Your task to perform on an android device: Go to Yahoo.com Image 0: 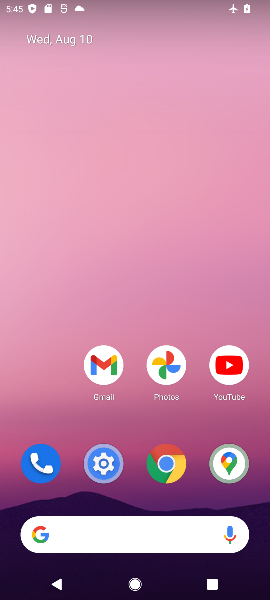
Step 0: click (171, 464)
Your task to perform on an android device: Go to Yahoo.com Image 1: 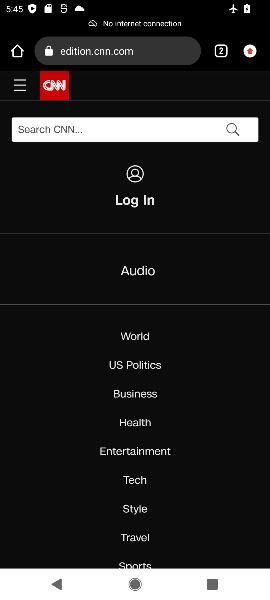
Step 1: click (250, 47)
Your task to perform on an android device: Go to Yahoo.com Image 2: 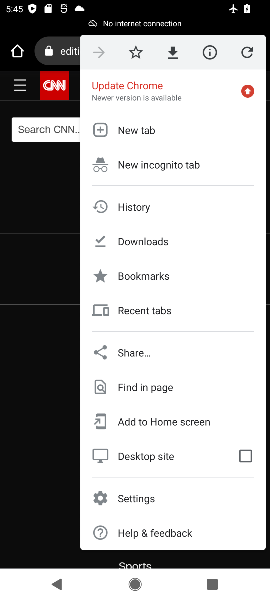
Step 2: click (134, 129)
Your task to perform on an android device: Go to Yahoo.com Image 3: 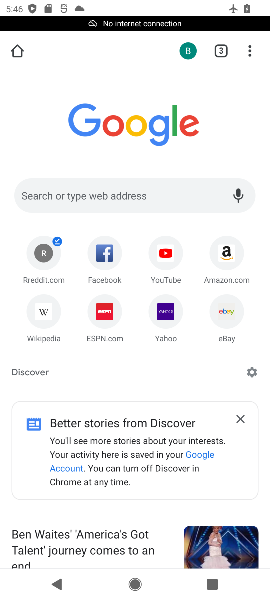
Step 3: click (166, 304)
Your task to perform on an android device: Go to Yahoo.com Image 4: 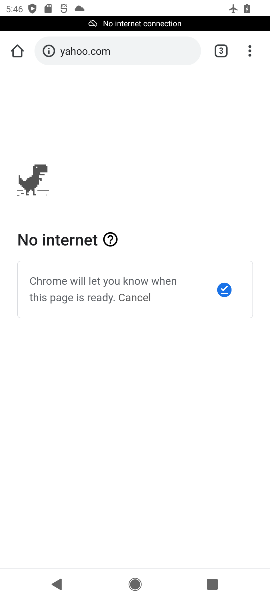
Step 4: click (21, 50)
Your task to perform on an android device: Go to Yahoo.com Image 5: 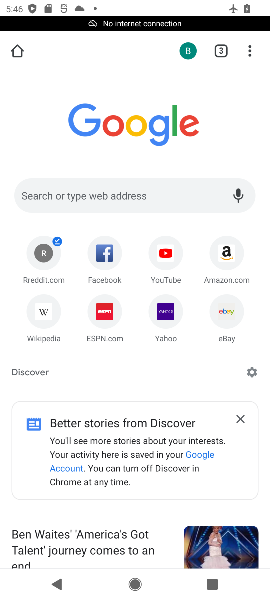
Step 5: click (166, 308)
Your task to perform on an android device: Go to Yahoo.com Image 6: 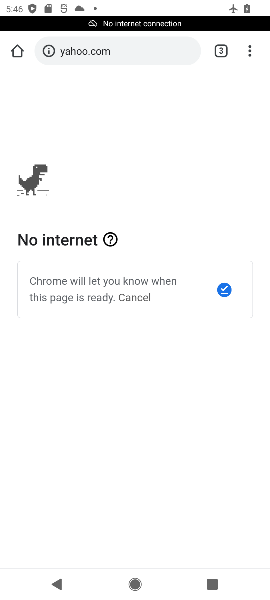
Step 6: click (254, 50)
Your task to perform on an android device: Go to Yahoo.com Image 7: 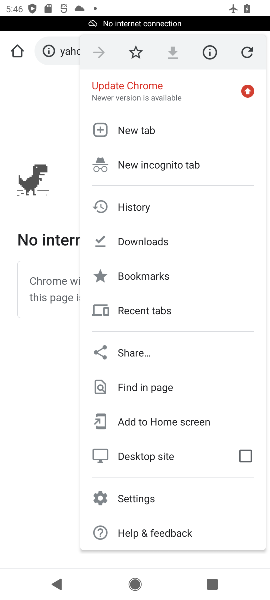
Step 7: click (253, 50)
Your task to perform on an android device: Go to Yahoo.com Image 8: 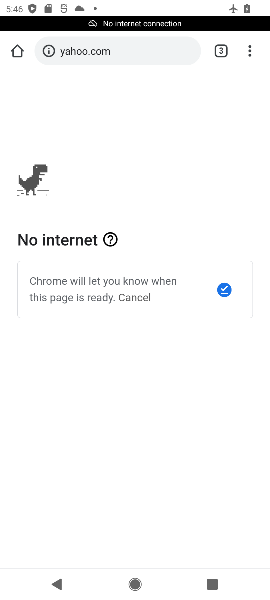
Step 8: task complete